Your task to perform on an android device: What is the news today? Image 0: 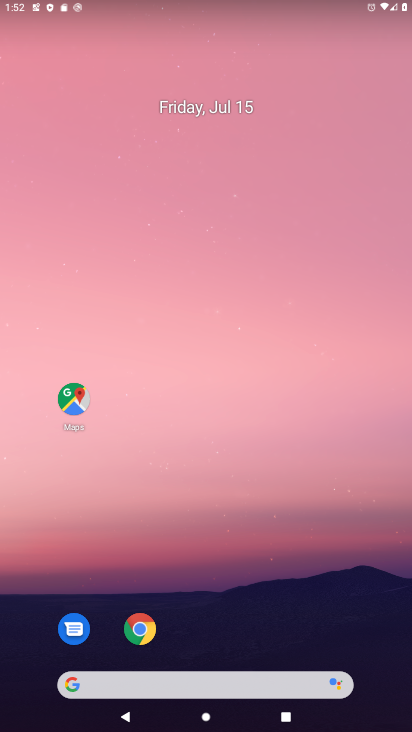
Step 0: drag from (268, 658) to (144, 125)
Your task to perform on an android device: What is the news today? Image 1: 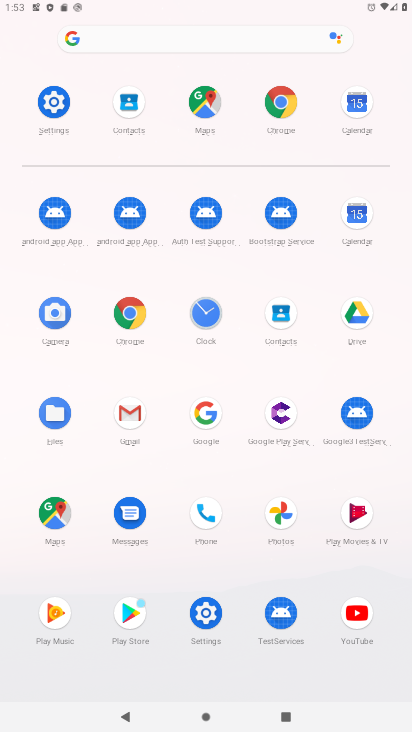
Step 1: click (281, 104)
Your task to perform on an android device: What is the news today? Image 2: 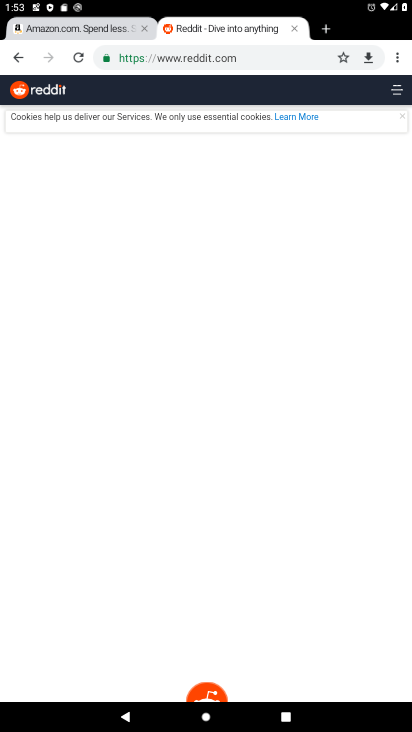
Step 2: click (251, 63)
Your task to perform on an android device: What is the news today? Image 3: 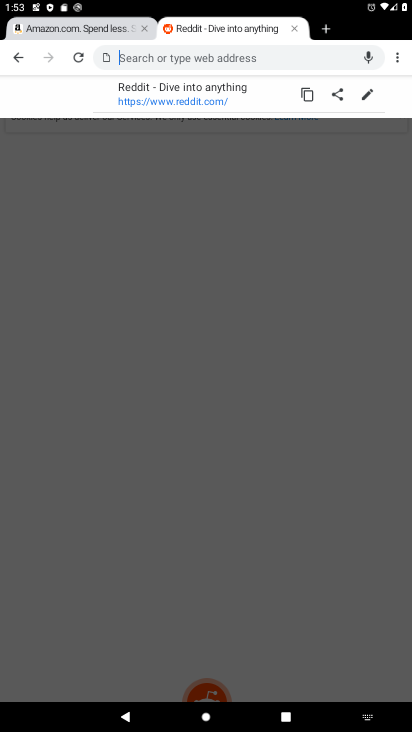
Step 3: type "news"
Your task to perform on an android device: What is the news today? Image 4: 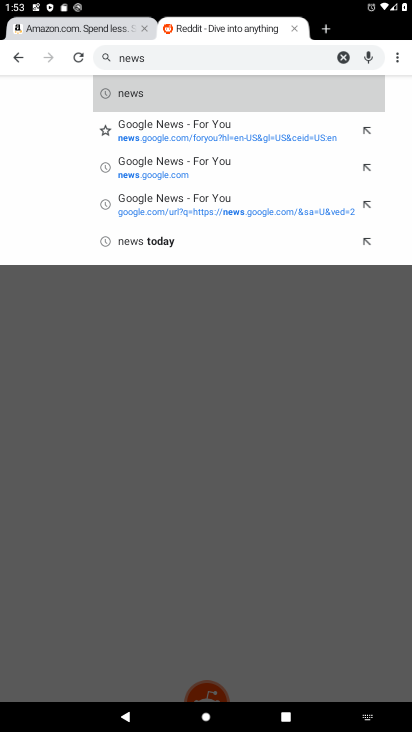
Step 4: click (131, 96)
Your task to perform on an android device: What is the news today? Image 5: 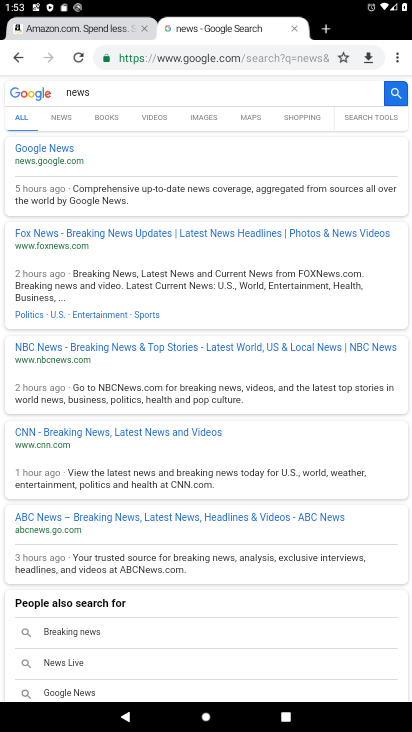
Step 5: click (72, 148)
Your task to perform on an android device: What is the news today? Image 6: 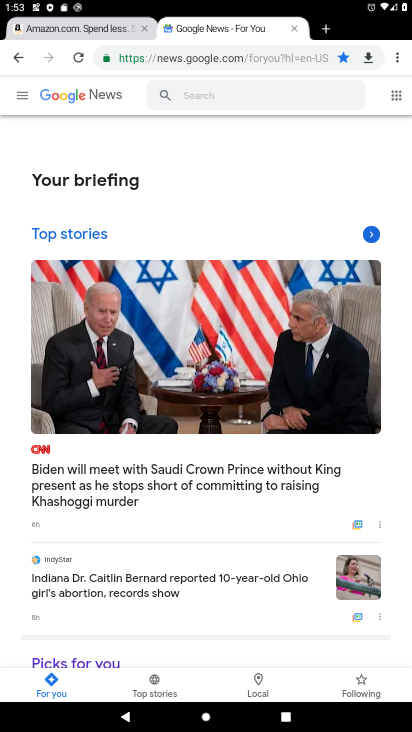
Step 6: task complete